Your task to perform on an android device: change the clock display to analog Image 0: 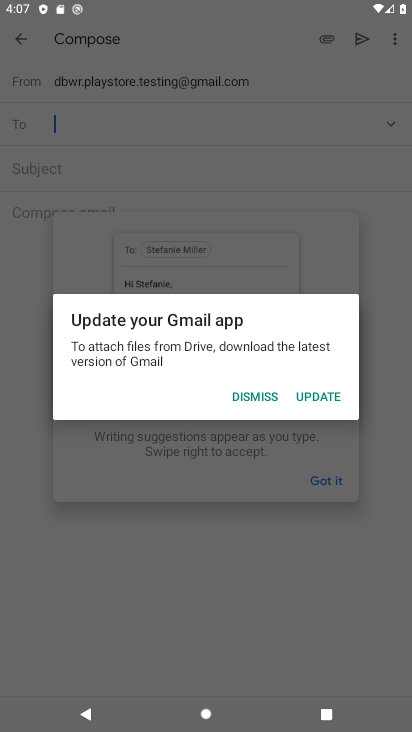
Step 0: press home button
Your task to perform on an android device: change the clock display to analog Image 1: 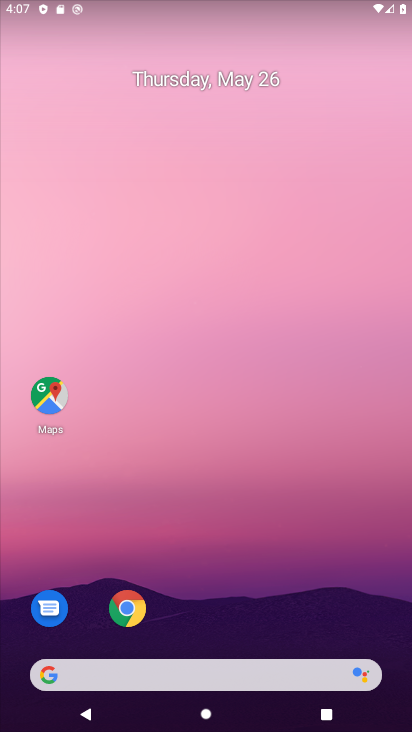
Step 1: drag from (273, 620) to (408, 39)
Your task to perform on an android device: change the clock display to analog Image 2: 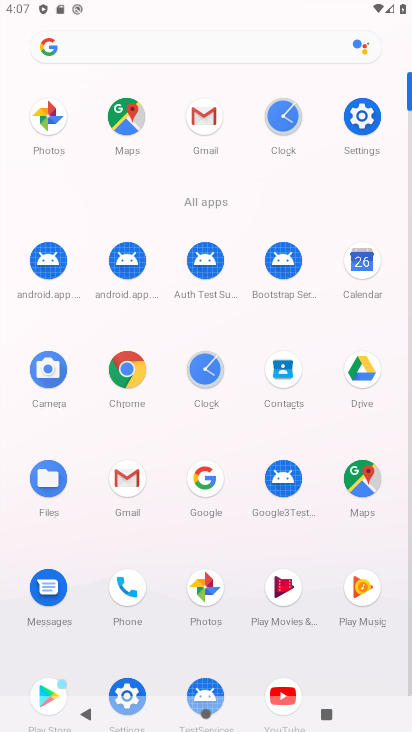
Step 2: click (212, 387)
Your task to perform on an android device: change the clock display to analog Image 3: 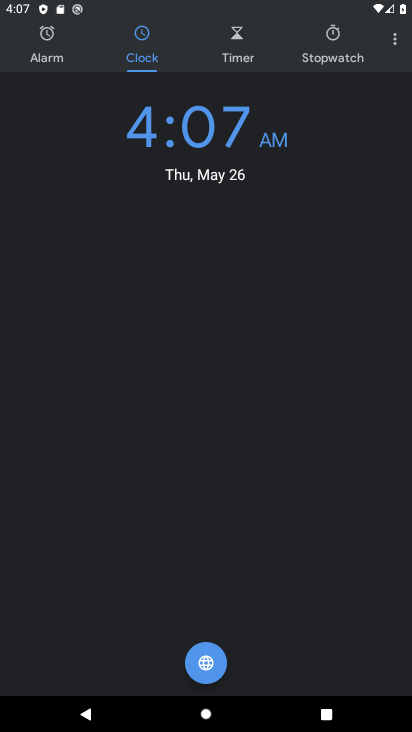
Step 3: click (386, 29)
Your task to perform on an android device: change the clock display to analog Image 4: 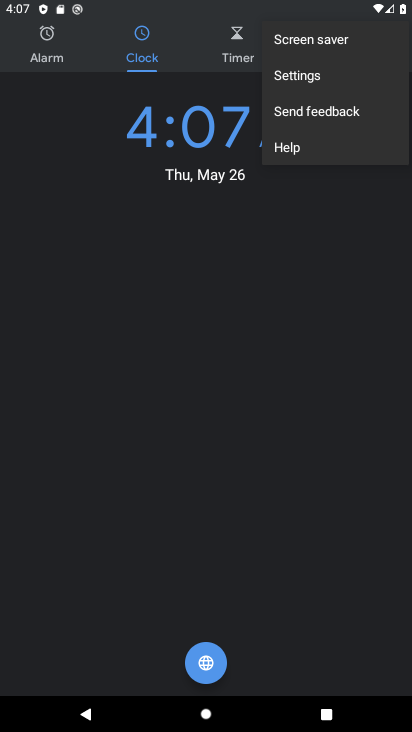
Step 4: click (357, 79)
Your task to perform on an android device: change the clock display to analog Image 5: 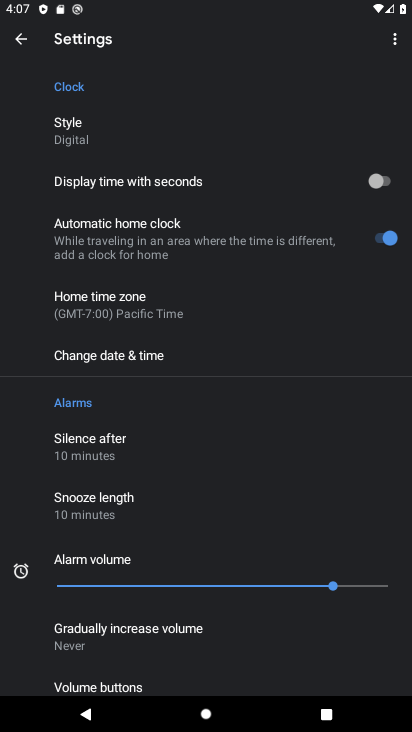
Step 5: click (259, 141)
Your task to perform on an android device: change the clock display to analog Image 6: 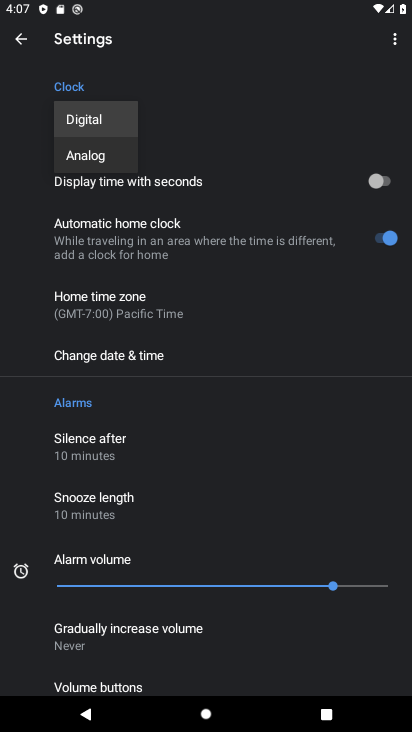
Step 6: click (93, 163)
Your task to perform on an android device: change the clock display to analog Image 7: 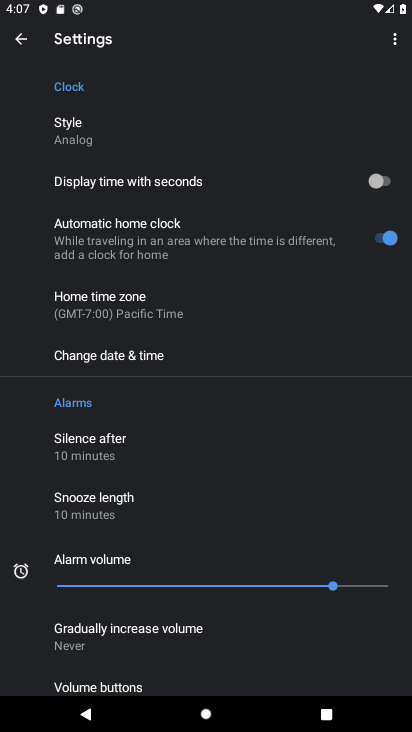
Step 7: task complete